Your task to perform on an android device: turn on airplane mode Image 0: 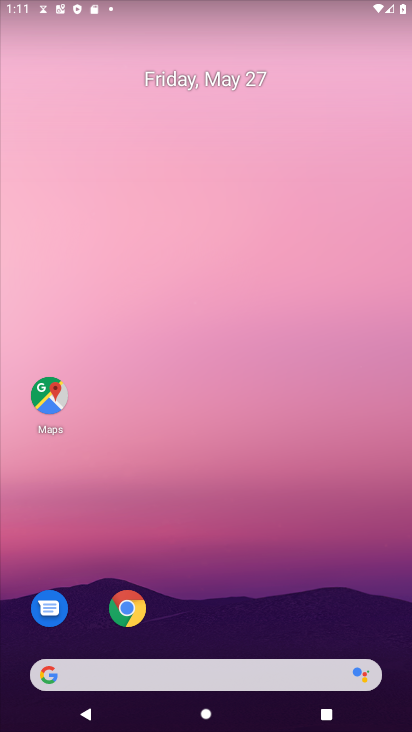
Step 0: drag from (357, 12) to (230, 573)
Your task to perform on an android device: turn on airplane mode Image 1: 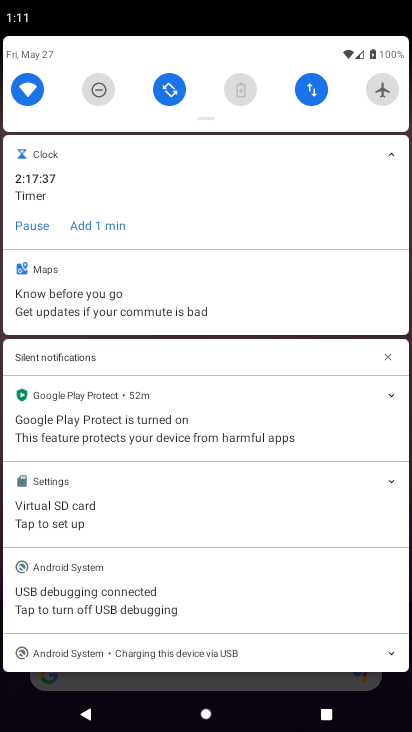
Step 1: click (381, 92)
Your task to perform on an android device: turn on airplane mode Image 2: 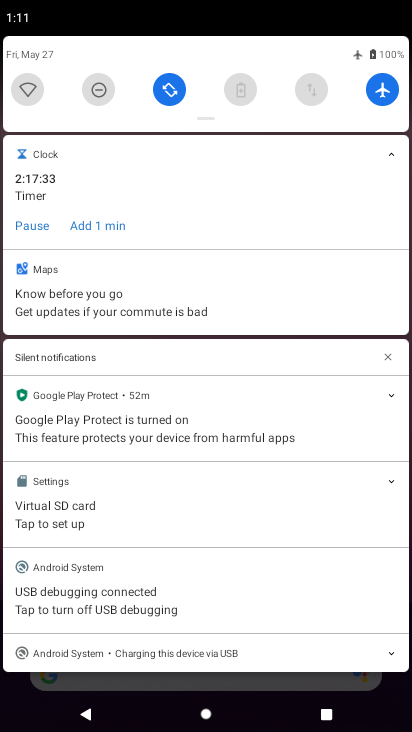
Step 2: task complete